Your task to perform on an android device: Is it going to rain today? Image 0: 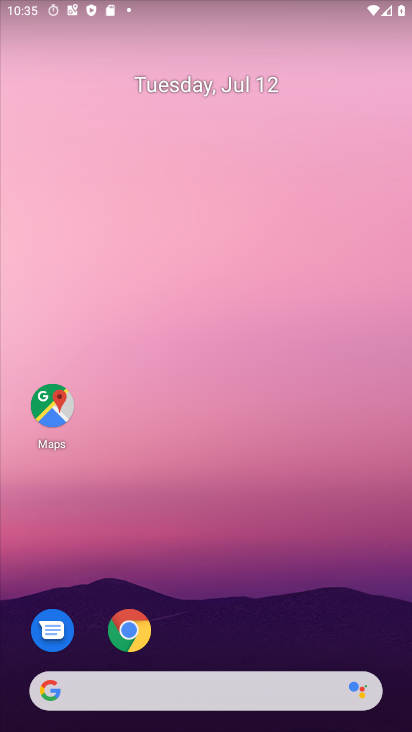
Step 0: drag from (199, 634) to (186, 129)
Your task to perform on an android device: Is it going to rain today? Image 1: 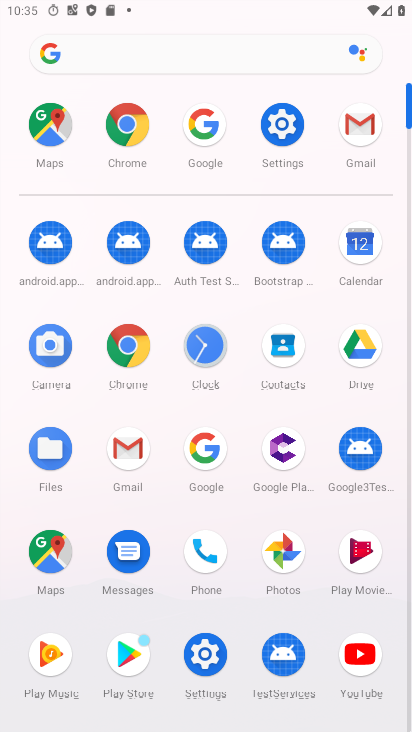
Step 1: click (202, 445)
Your task to perform on an android device: Is it going to rain today? Image 2: 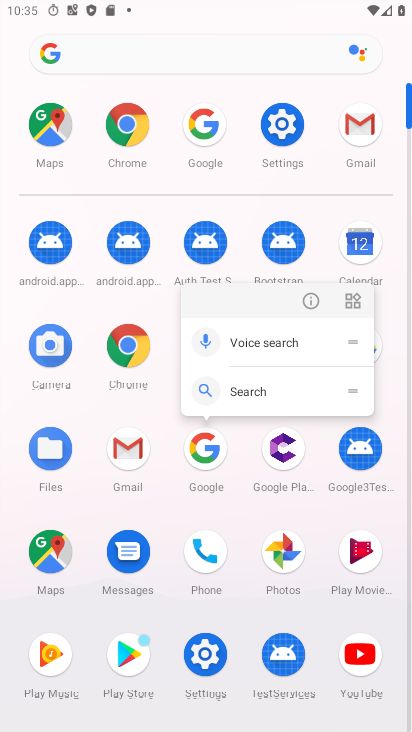
Step 2: click (206, 436)
Your task to perform on an android device: Is it going to rain today? Image 3: 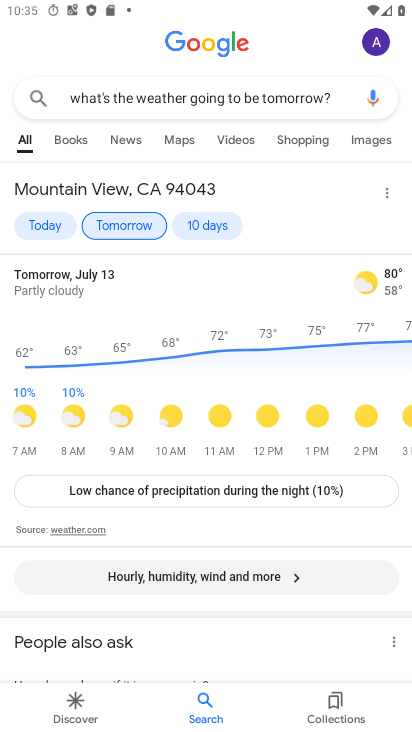
Step 3: click (316, 98)
Your task to perform on an android device: Is it going to rain today? Image 4: 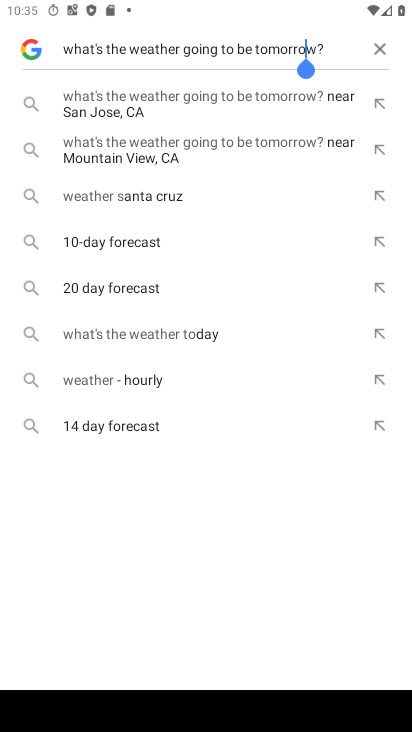
Step 4: click (373, 48)
Your task to perform on an android device: Is it going to rain today? Image 5: 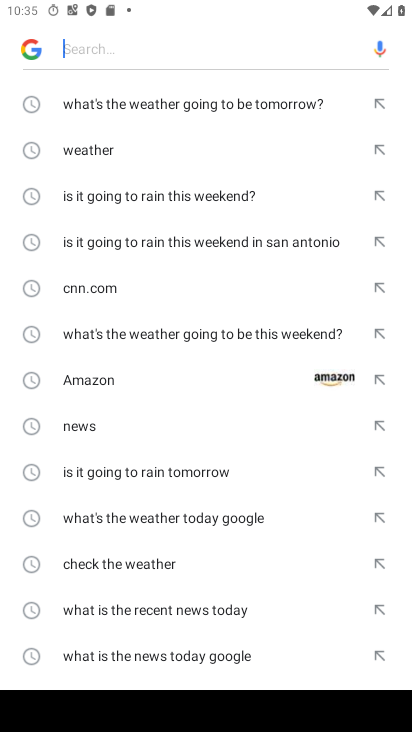
Step 5: drag from (249, 506) to (277, 653)
Your task to perform on an android device: Is it going to rain today? Image 6: 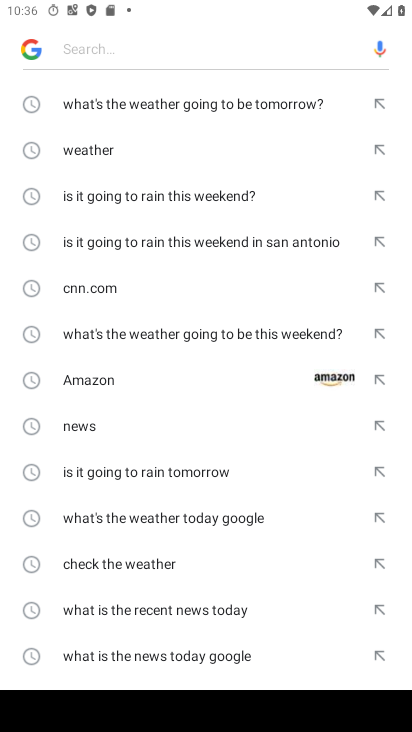
Step 6: type "is it going to rain today?"
Your task to perform on an android device: Is it going to rain today? Image 7: 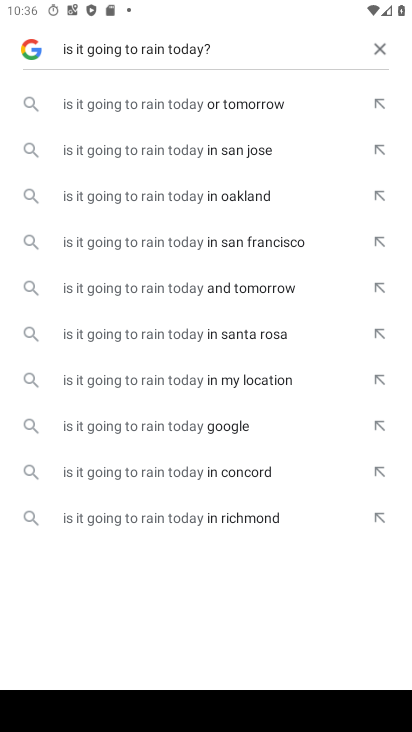
Step 7: click (170, 110)
Your task to perform on an android device: Is it going to rain today? Image 8: 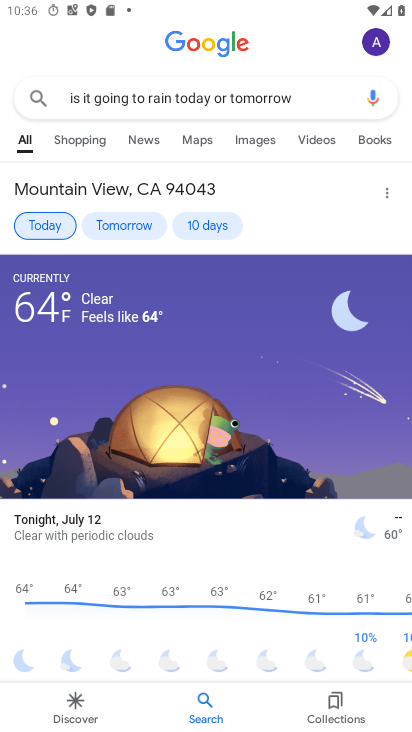
Step 8: task complete